Your task to perform on an android device: Empty the shopping cart on newegg. Search for "razer deathadder" on newegg, select the first entry, and add it to the cart. Image 0: 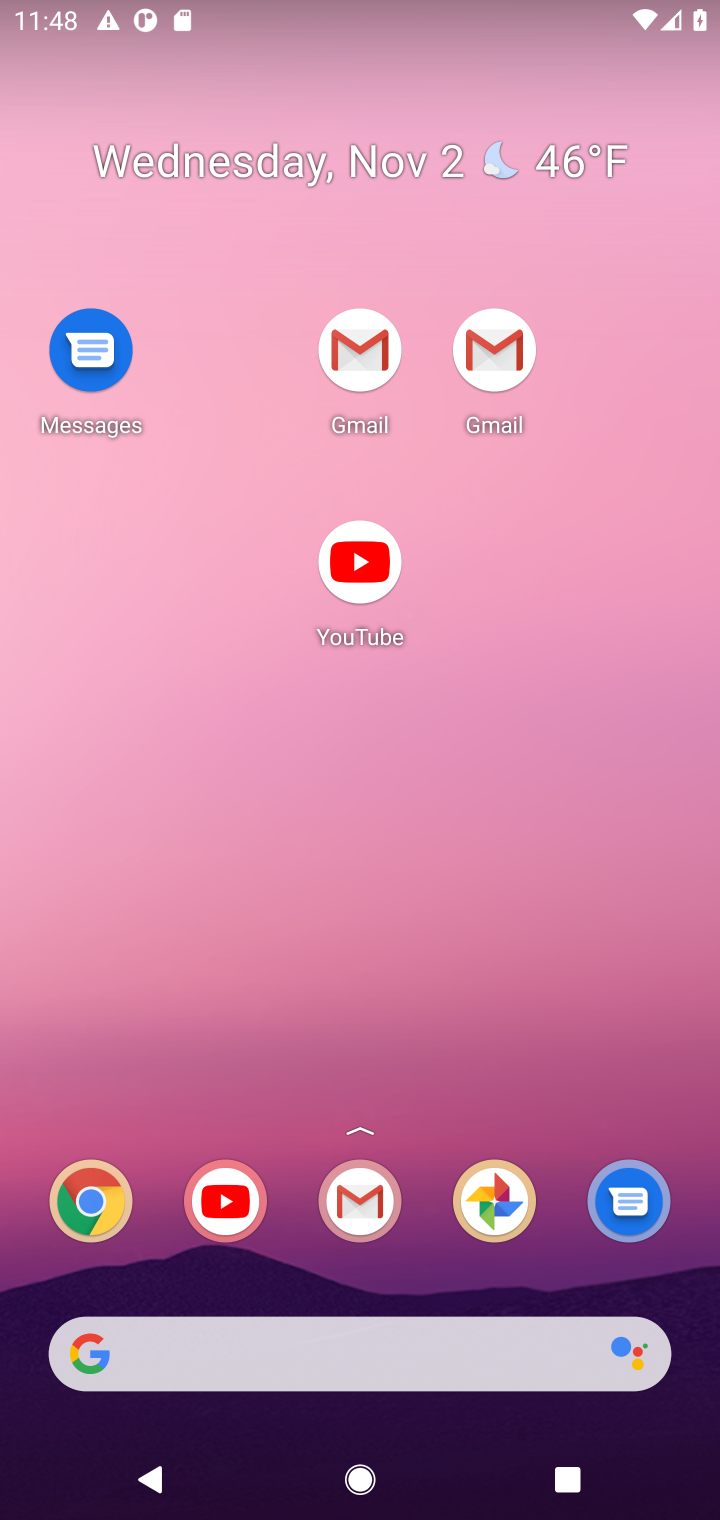
Step 0: drag from (405, 1275) to (346, 327)
Your task to perform on an android device: Empty the shopping cart on newegg. Search for "razer deathadder" on newegg, select the first entry, and add it to the cart. Image 1: 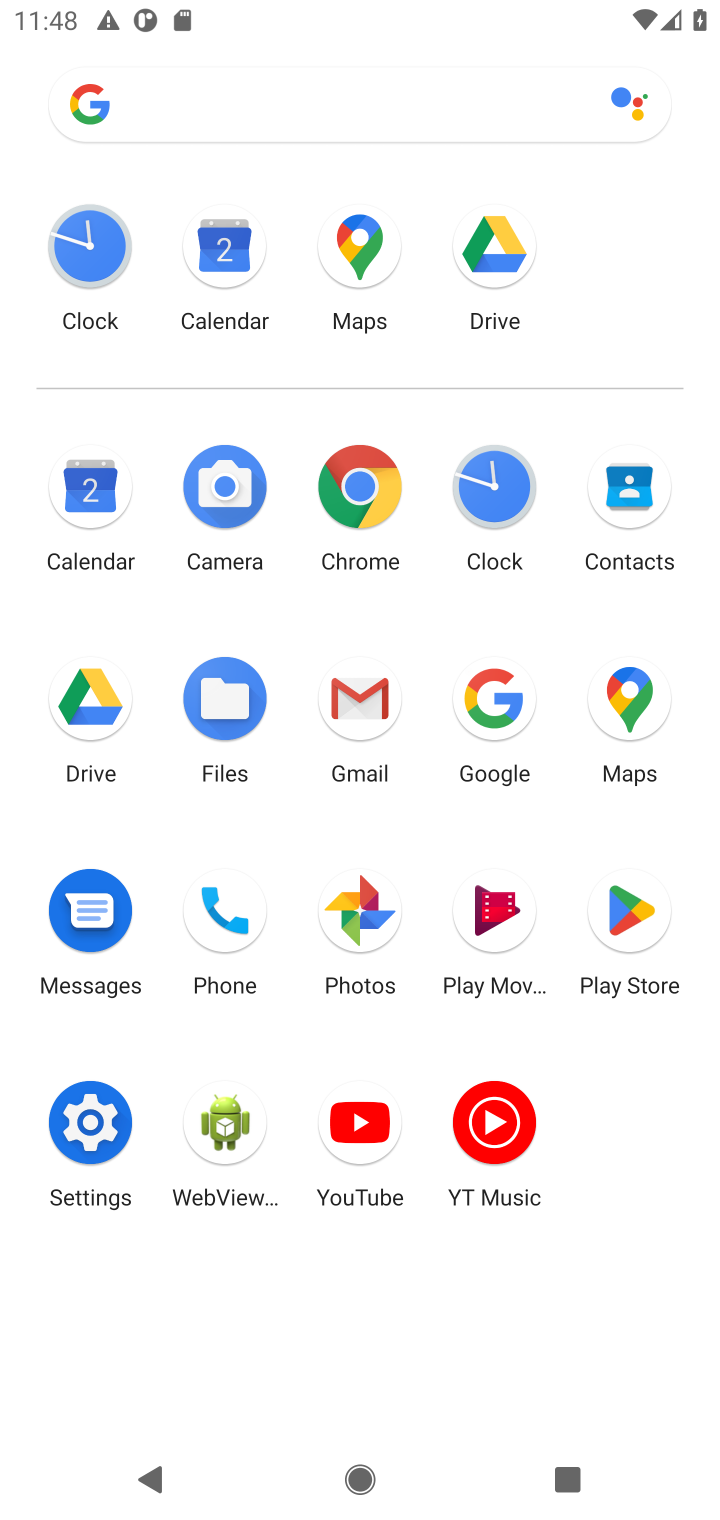
Step 1: click (359, 486)
Your task to perform on an android device: Empty the shopping cart on newegg. Search for "razer deathadder" on newegg, select the first entry, and add it to the cart. Image 2: 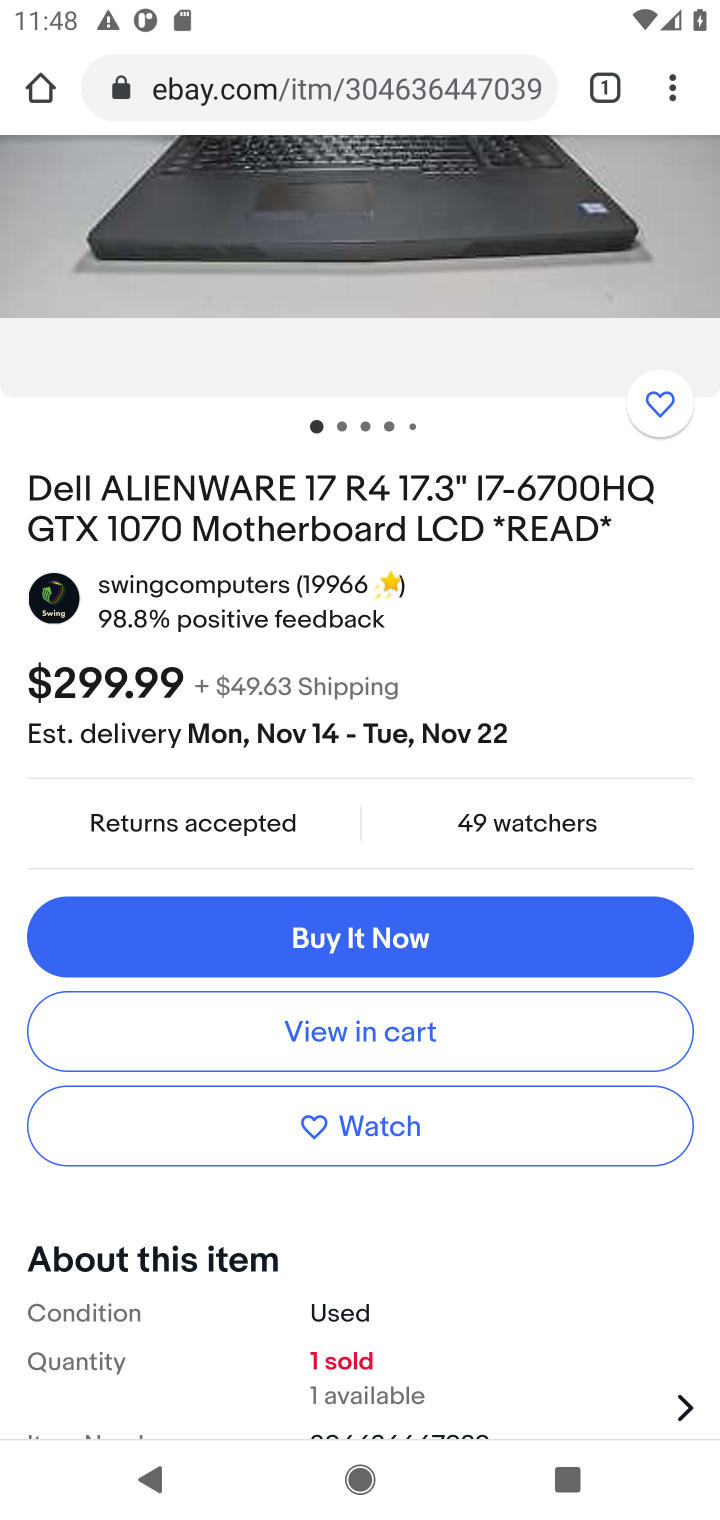
Step 2: click (393, 90)
Your task to perform on an android device: Empty the shopping cart on newegg. Search for "razer deathadder" on newegg, select the first entry, and add it to the cart. Image 3: 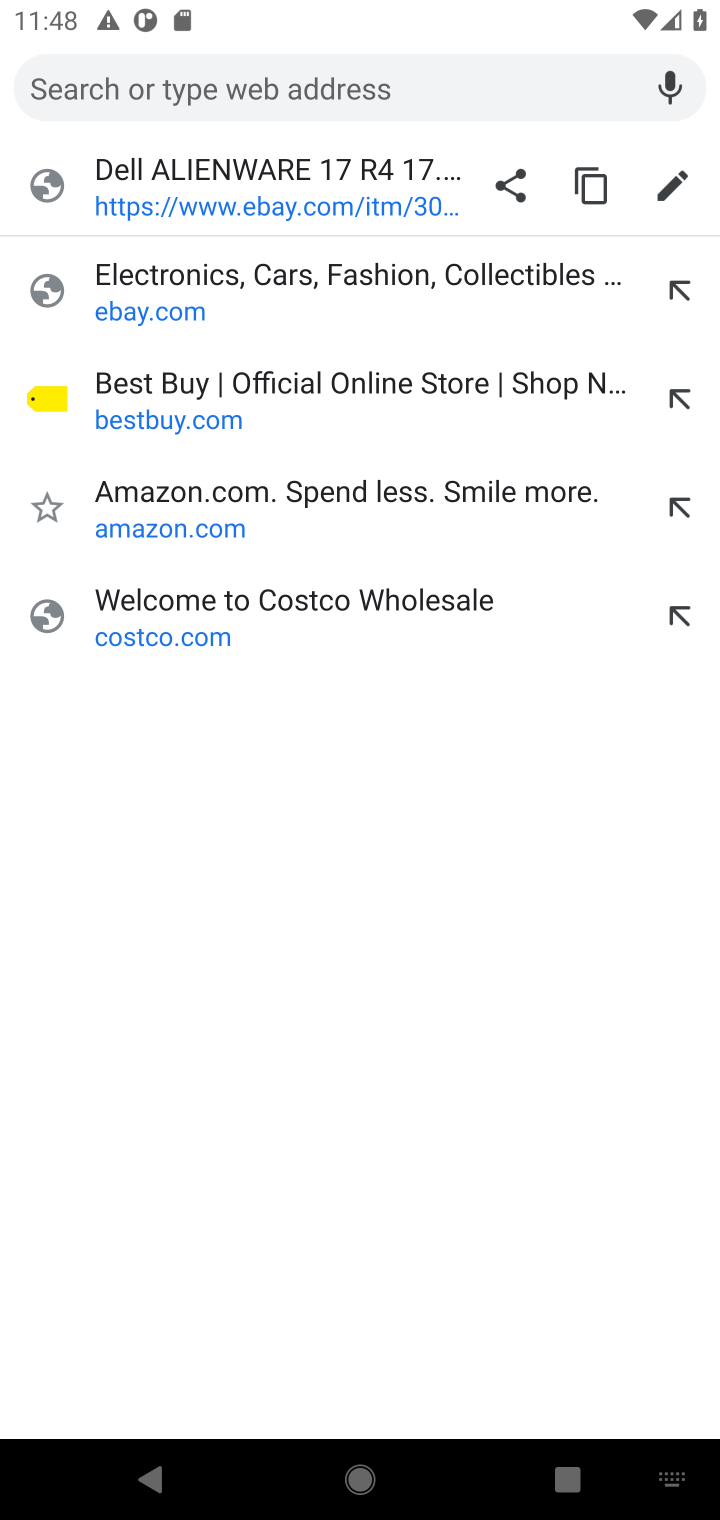
Step 3: type "newegg.com"
Your task to perform on an android device: Empty the shopping cart on newegg. Search for "razer deathadder" on newegg, select the first entry, and add it to the cart. Image 4: 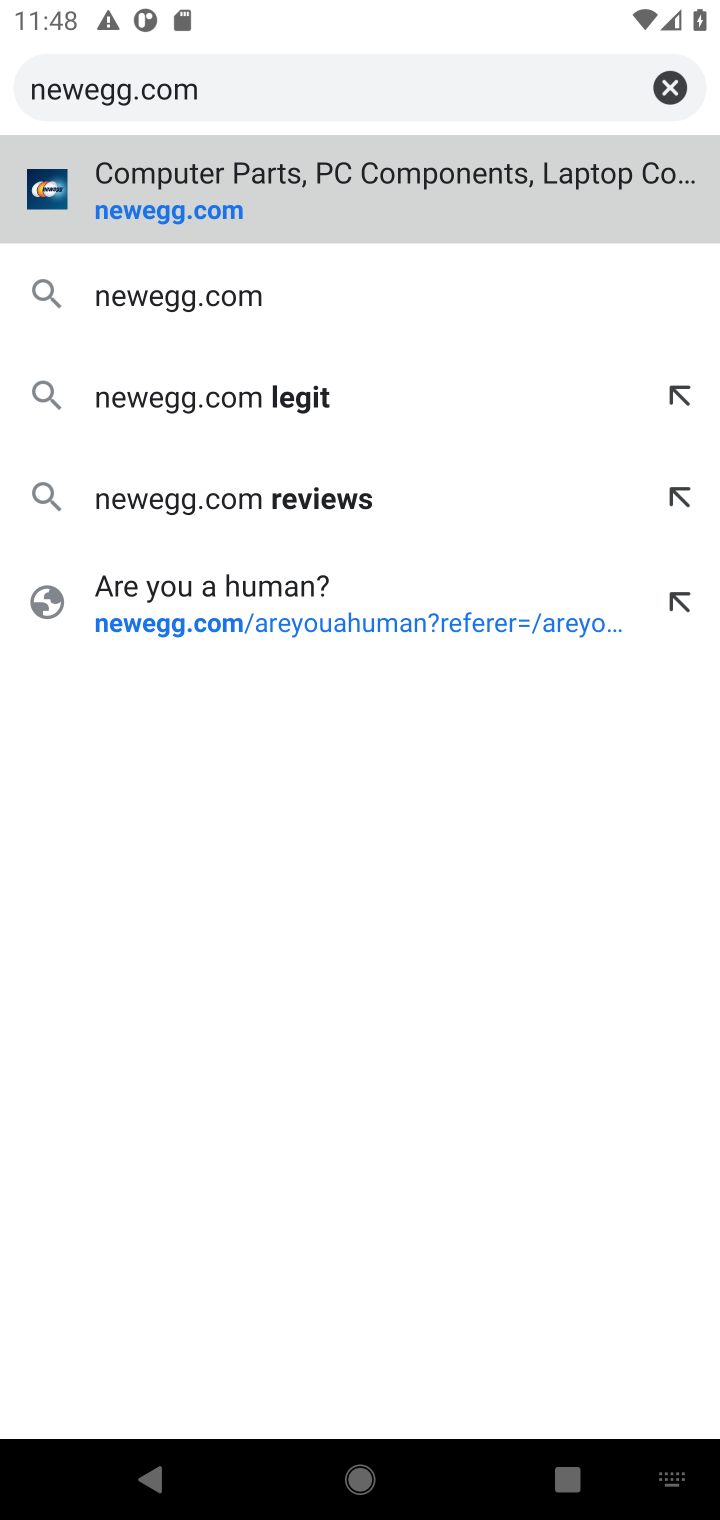
Step 4: press enter
Your task to perform on an android device: Empty the shopping cart on newegg. Search for "razer deathadder" on newegg, select the first entry, and add it to the cart. Image 5: 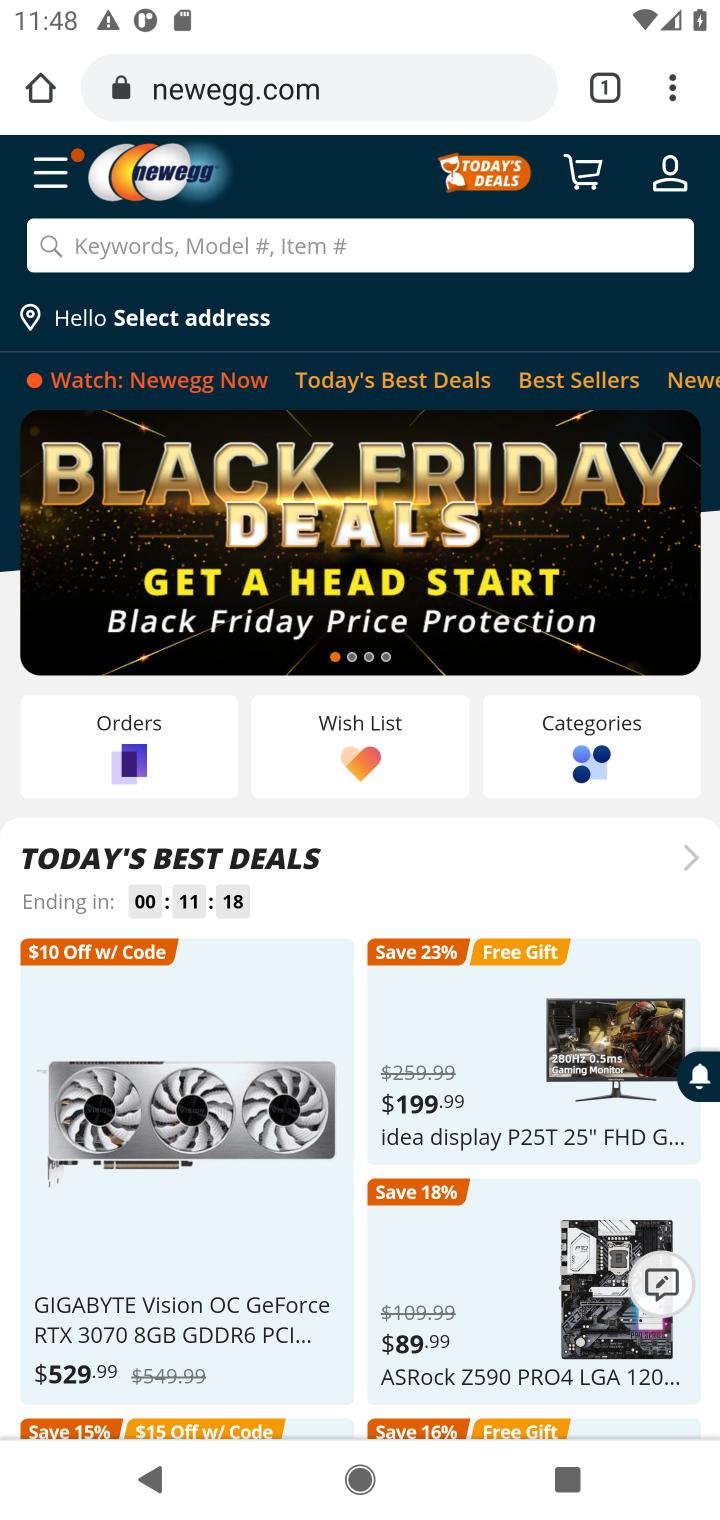
Step 5: click (389, 244)
Your task to perform on an android device: Empty the shopping cart on newegg. Search for "razer deathadder" on newegg, select the first entry, and add it to the cart. Image 6: 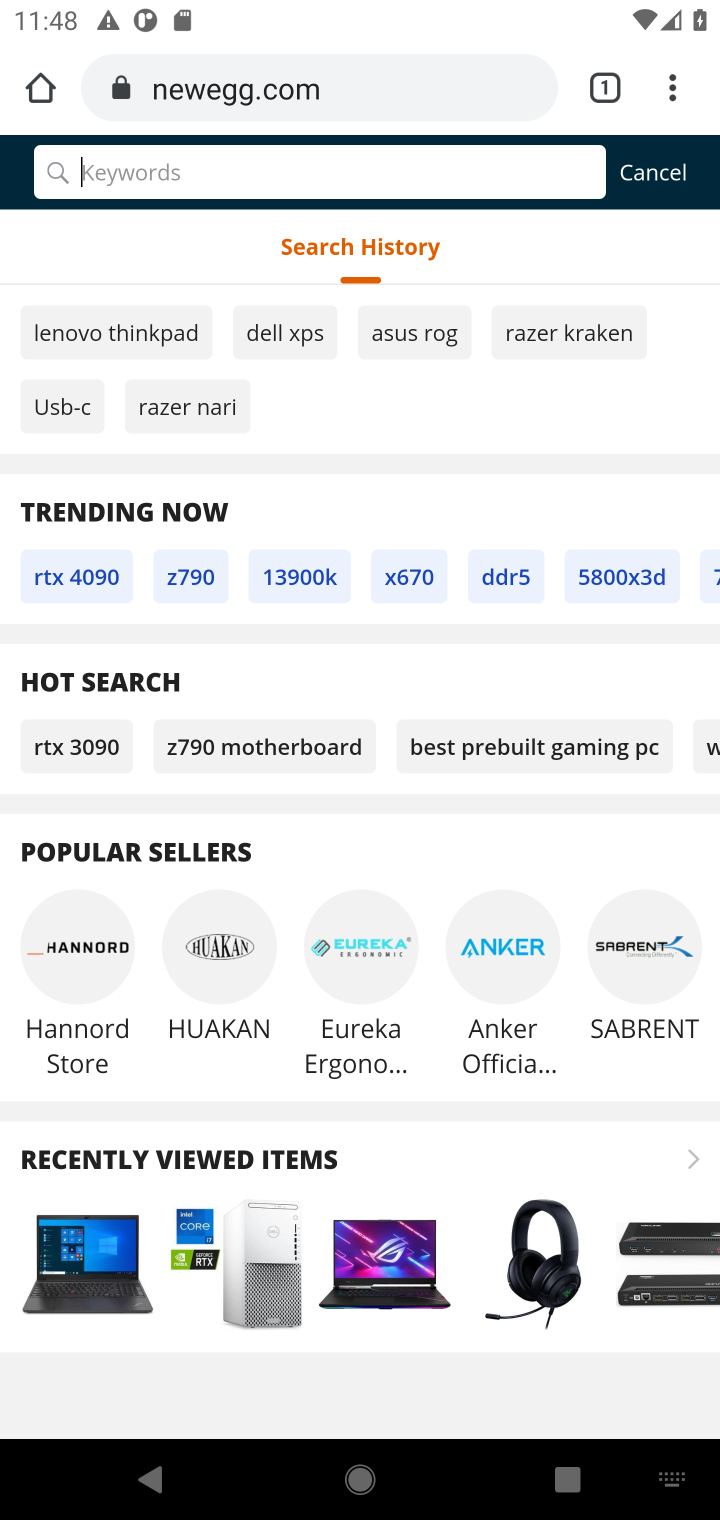
Step 6: type "razer deathadder"
Your task to perform on an android device: Empty the shopping cart on newegg. Search for "razer deathadder" on newegg, select the first entry, and add it to the cart. Image 7: 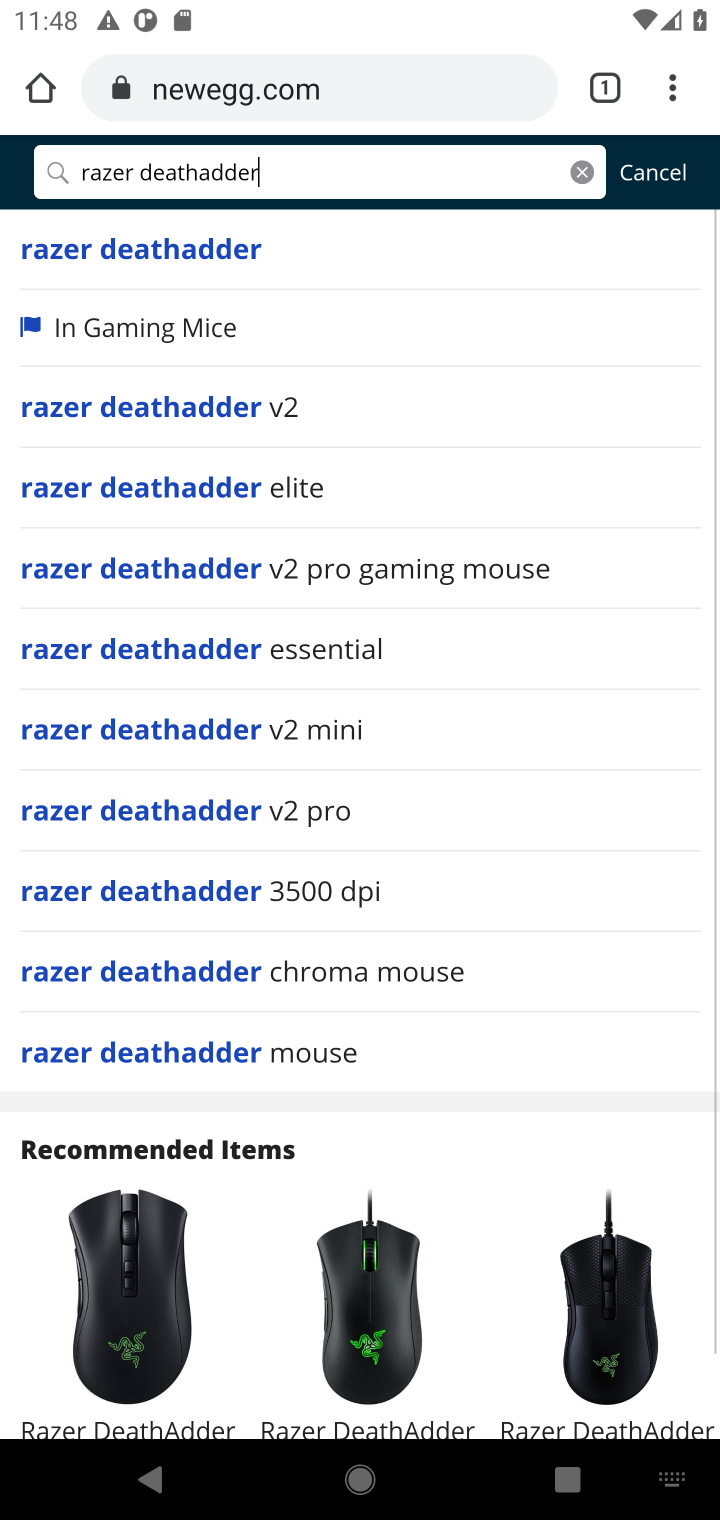
Step 7: press enter
Your task to perform on an android device: Empty the shopping cart on newegg. Search for "razer deathadder" on newegg, select the first entry, and add it to the cart. Image 8: 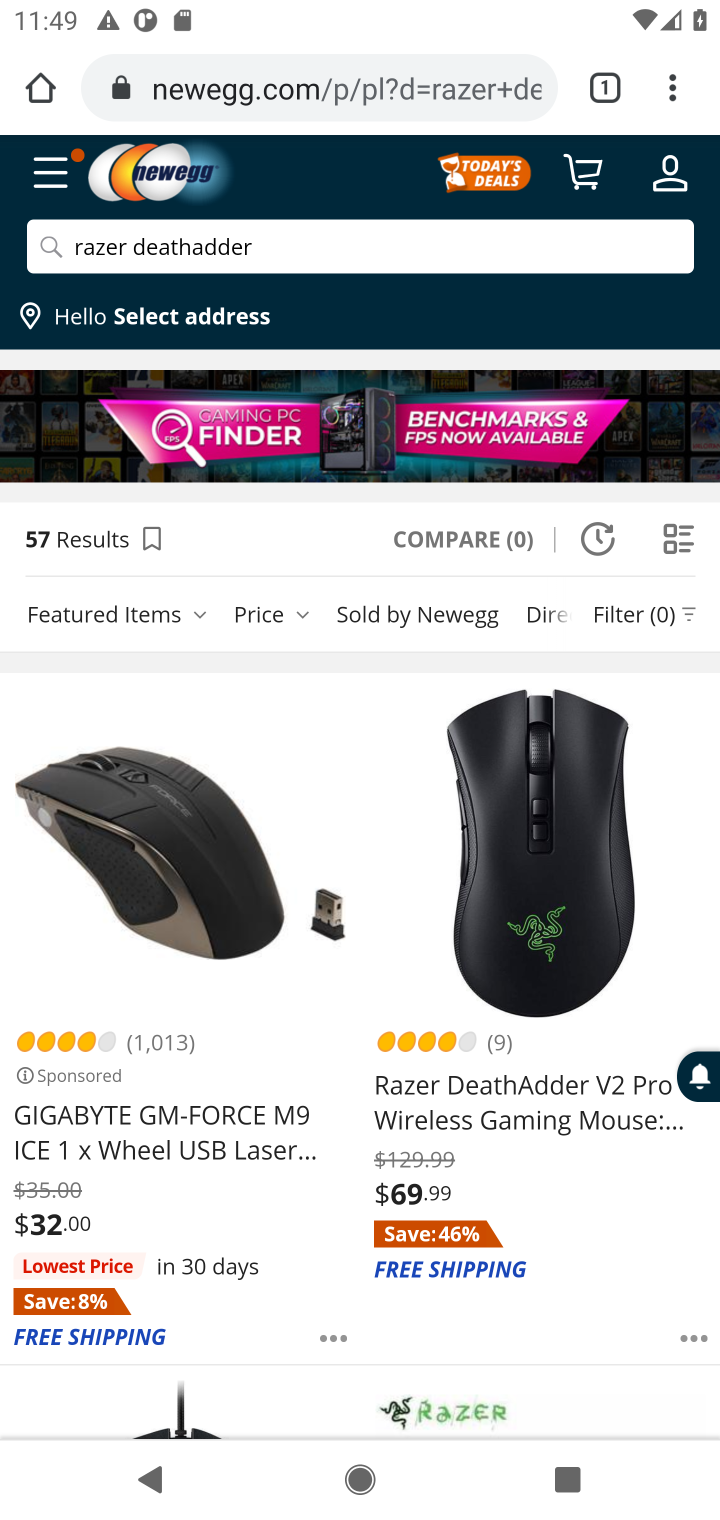
Step 8: click (563, 1121)
Your task to perform on an android device: Empty the shopping cart on newegg. Search for "razer deathadder" on newegg, select the first entry, and add it to the cart. Image 9: 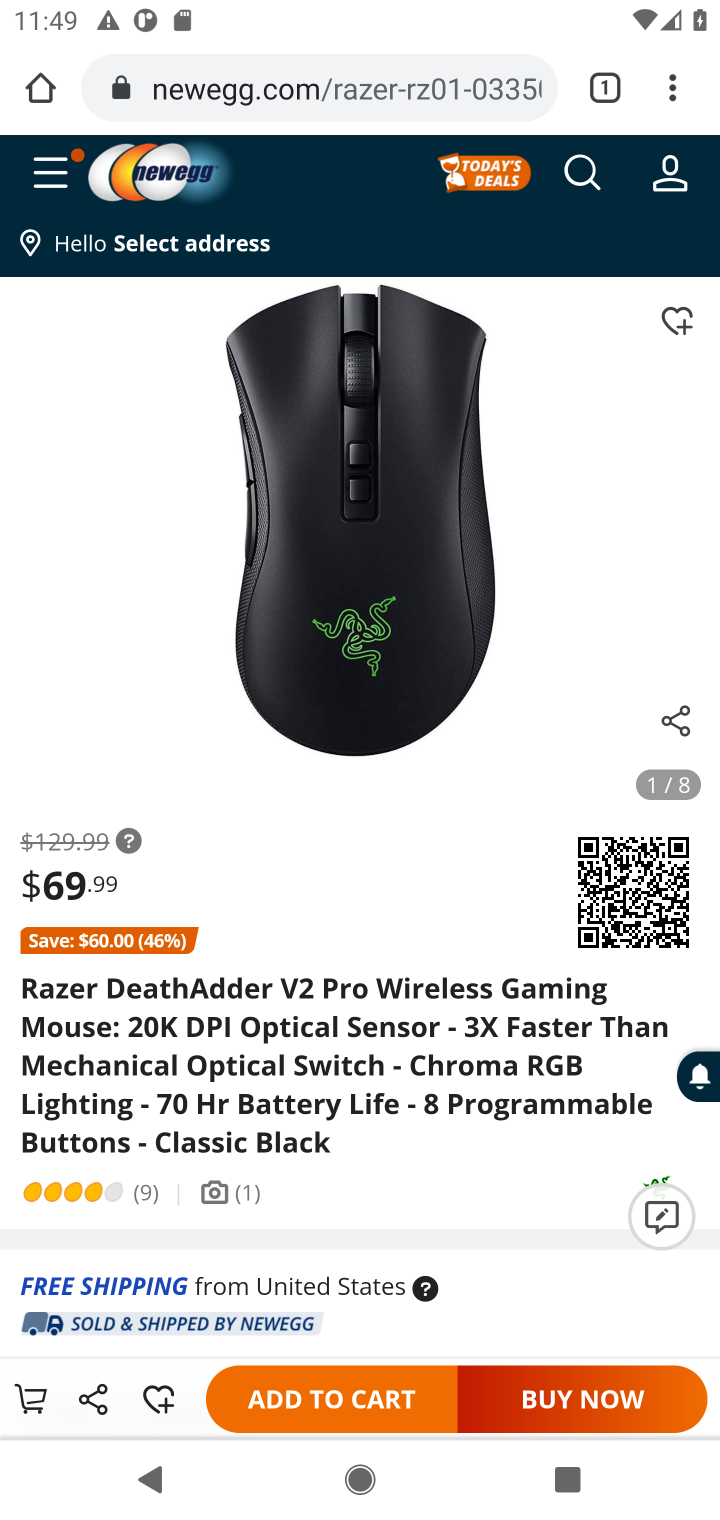
Step 9: click (319, 1411)
Your task to perform on an android device: Empty the shopping cart on newegg. Search for "razer deathadder" on newegg, select the first entry, and add it to the cart. Image 10: 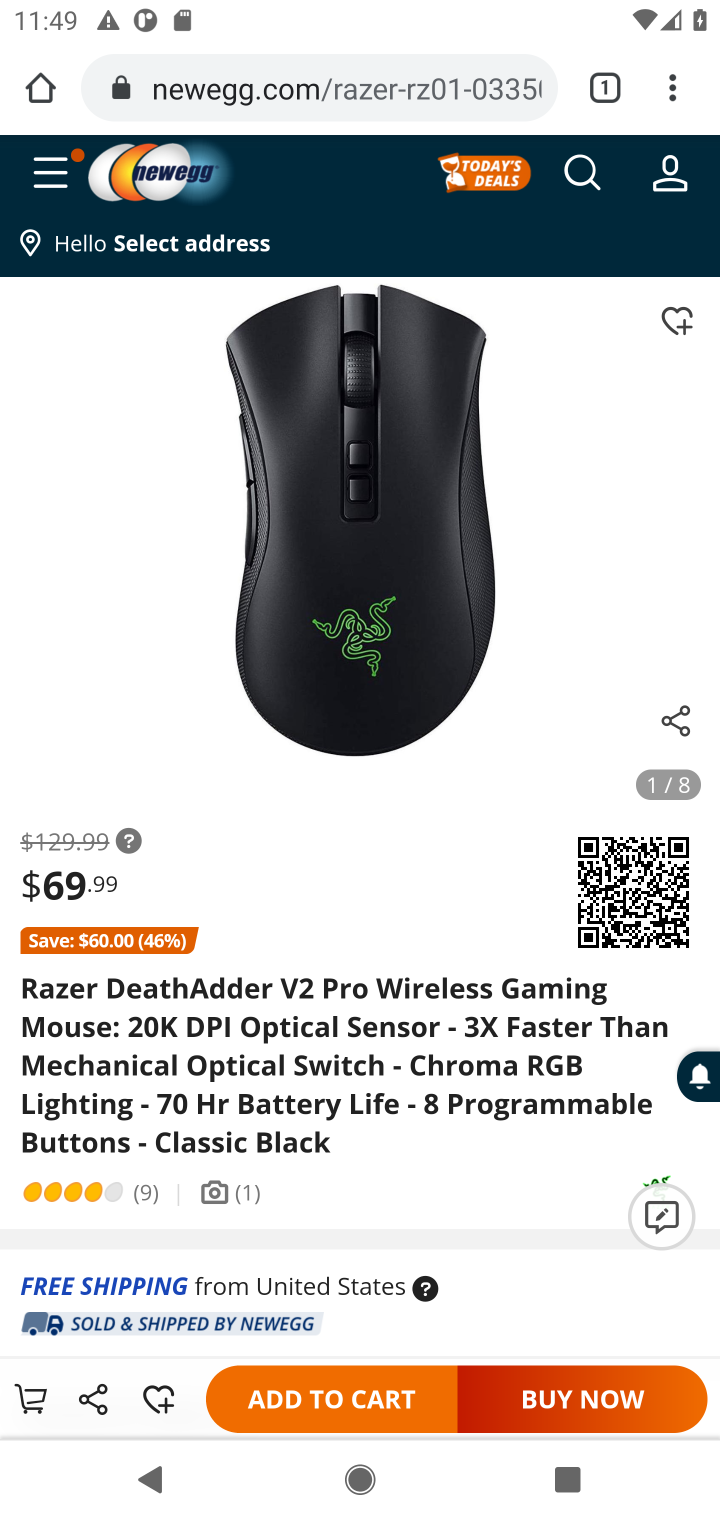
Step 10: click (352, 1397)
Your task to perform on an android device: Empty the shopping cart on newegg. Search for "razer deathadder" on newegg, select the first entry, and add it to the cart. Image 11: 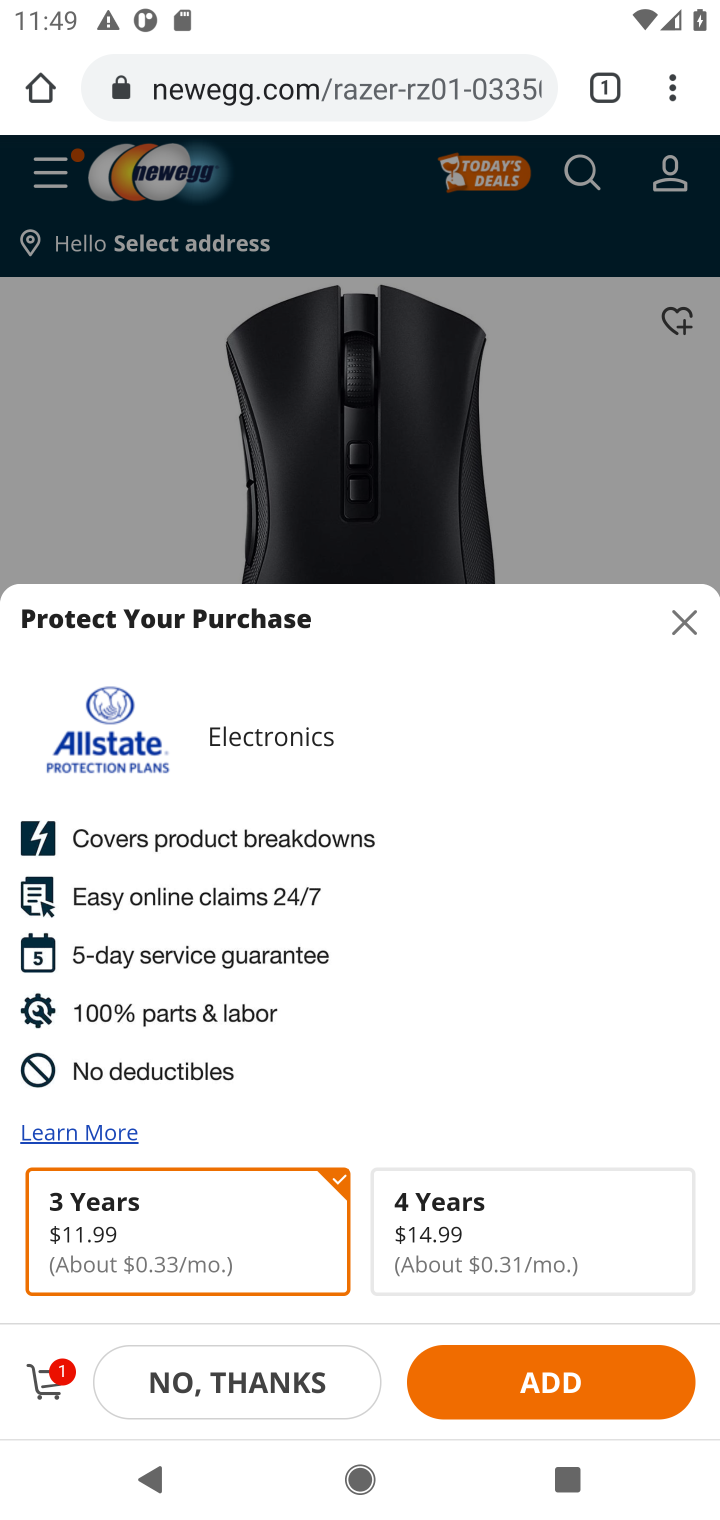
Step 11: click (312, 1378)
Your task to perform on an android device: Empty the shopping cart on newegg. Search for "razer deathadder" on newegg, select the first entry, and add it to the cart. Image 12: 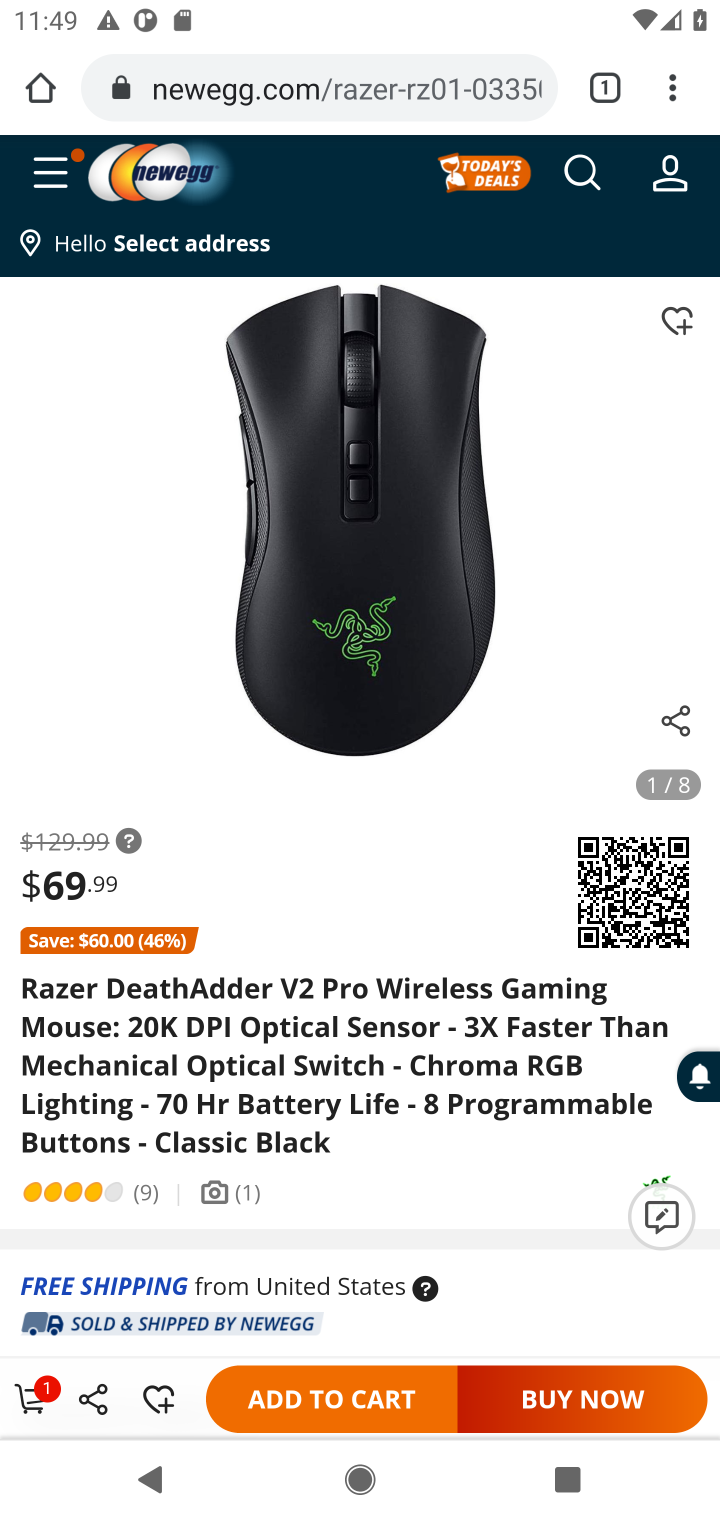
Step 12: task complete